Your task to perform on an android device: choose inbox layout in the gmail app Image 0: 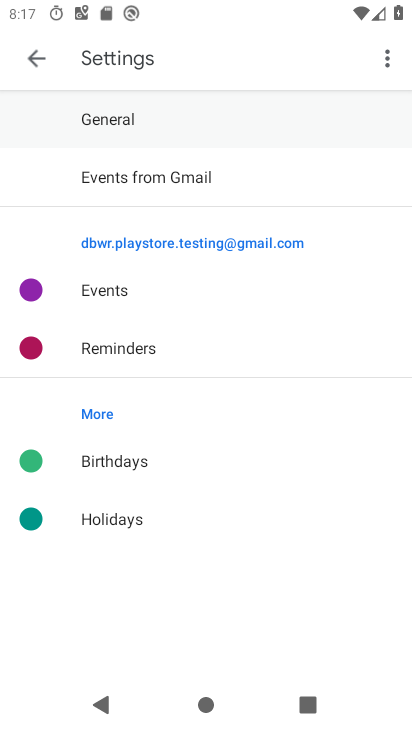
Step 0: press home button
Your task to perform on an android device: choose inbox layout in the gmail app Image 1: 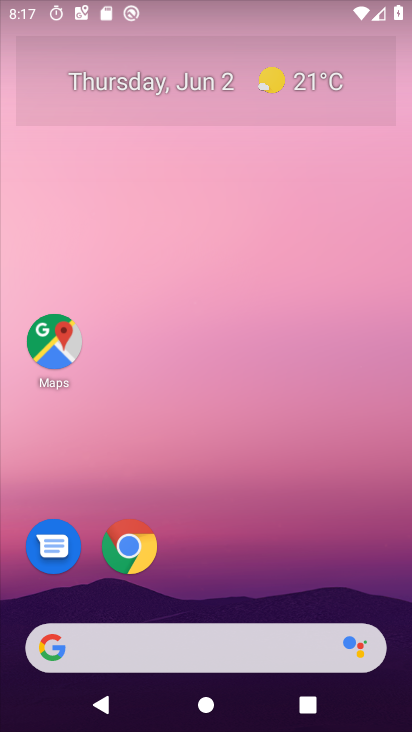
Step 1: drag from (307, 559) to (291, 124)
Your task to perform on an android device: choose inbox layout in the gmail app Image 2: 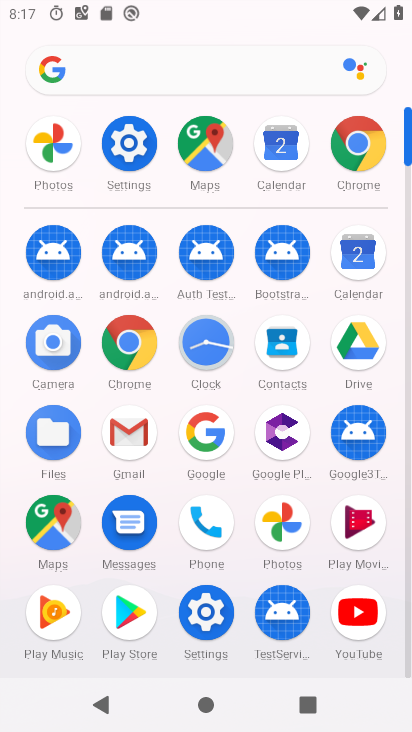
Step 2: click (123, 437)
Your task to perform on an android device: choose inbox layout in the gmail app Image 3: 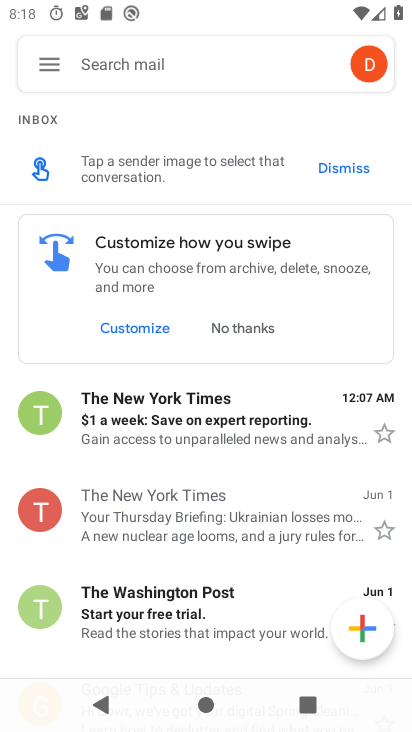
Step 3: click (27, 63)
Your task to perform on an android device: choose inbox layout in the gmail app Image 4: 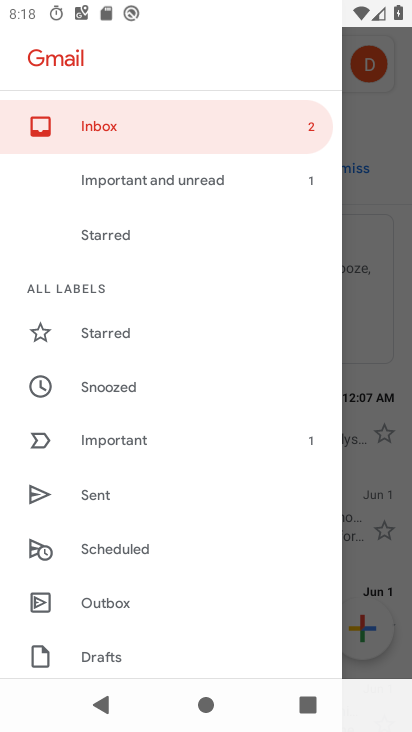
Step 4: drag from (120, 617) to (176, 258)
Your task to perform on an android device: choose inbox layout in the gmail app Image 5: 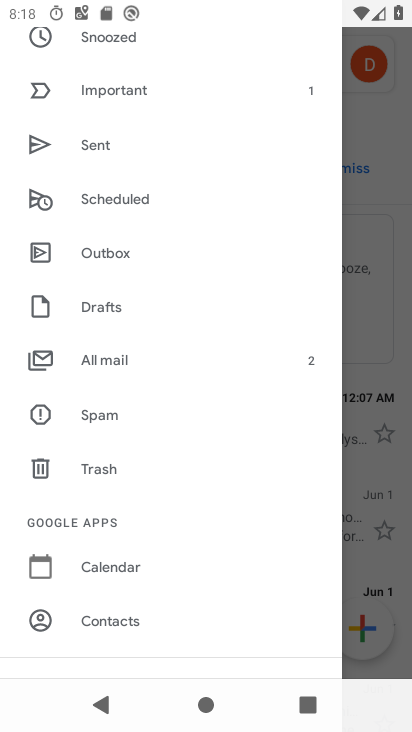
Step 5: drag from (141, 647) to (214, 339)
Your task to perform on an android device: choose inbox layout in the gmail app Image 6: 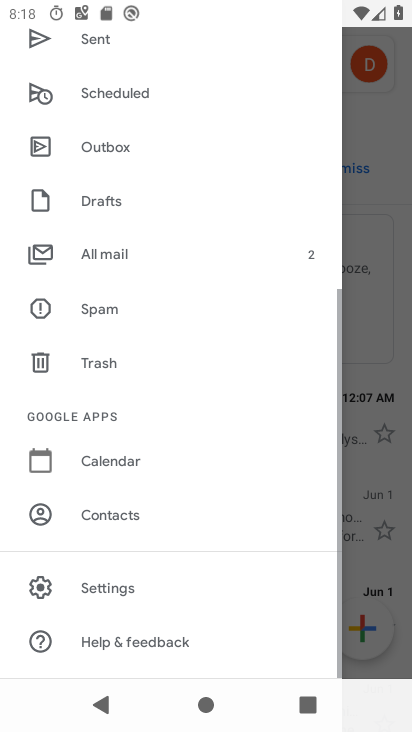
Step 6: click (141, 585)
Your task to perform on an android device: choose inbox layout in the gmail app Image 7: 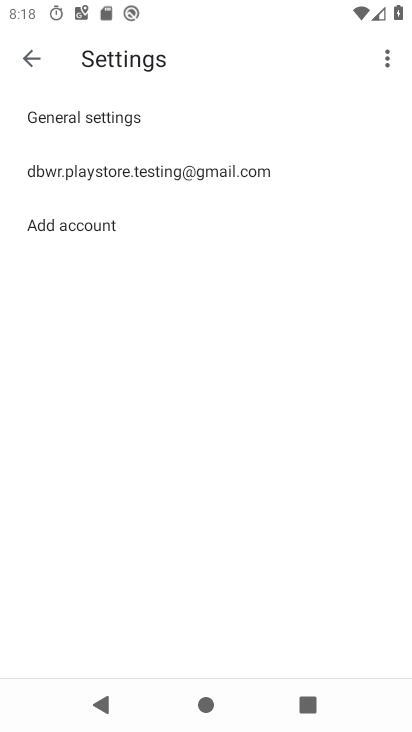
Step 7: click (269, 180)
Your task to perform on an android device: choose inbox layout in the gmail app Image 8: 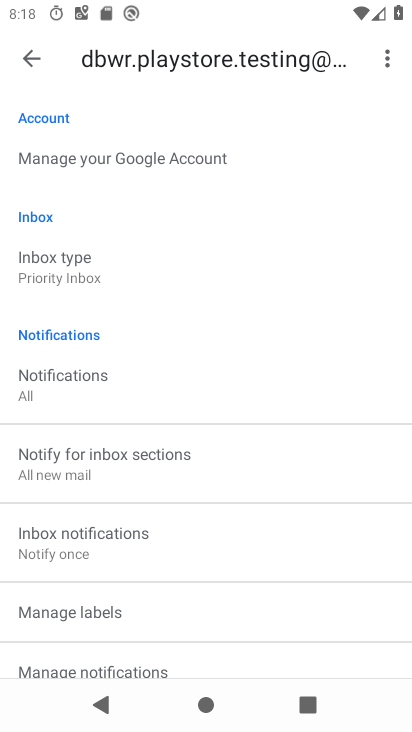
Step 8: click (82, 290)
Your task to perform on an android device: choose inbox layout in the gmail app Image 9: 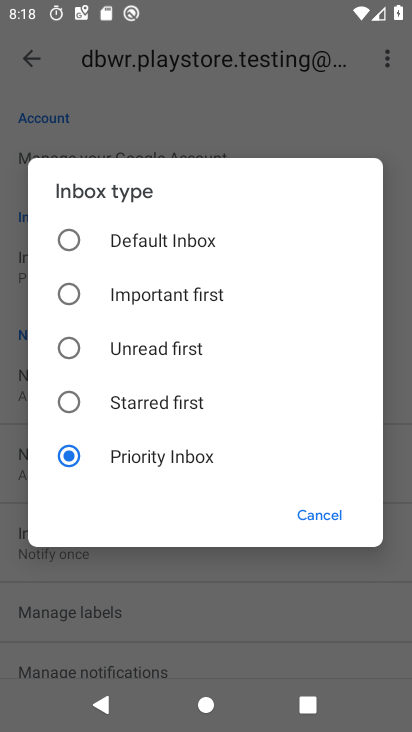
Step 9: click (72, 284)
Your task to perform on an android device: choose inbox layout in the gmail app Image 10: 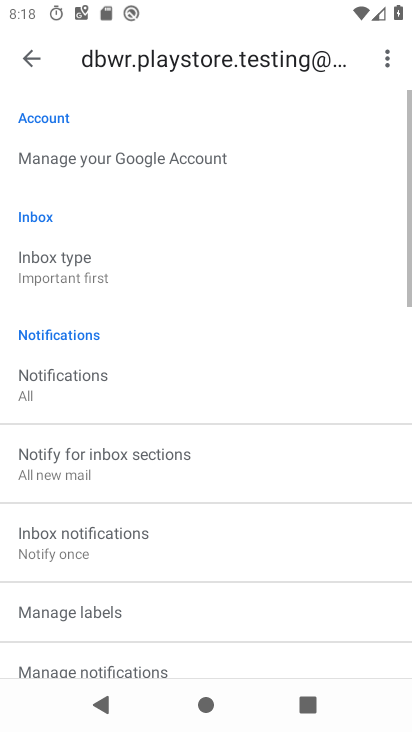
Step 10: task complete